Your task to perform on an android device: Open eBay Image 0: 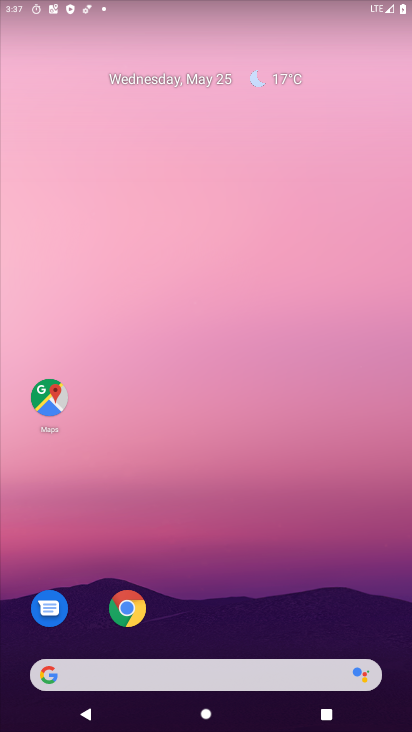
Step 0: drag from (277, 565) to (249, 149)
Your task to perform on an android device: Open eBay Image 1: 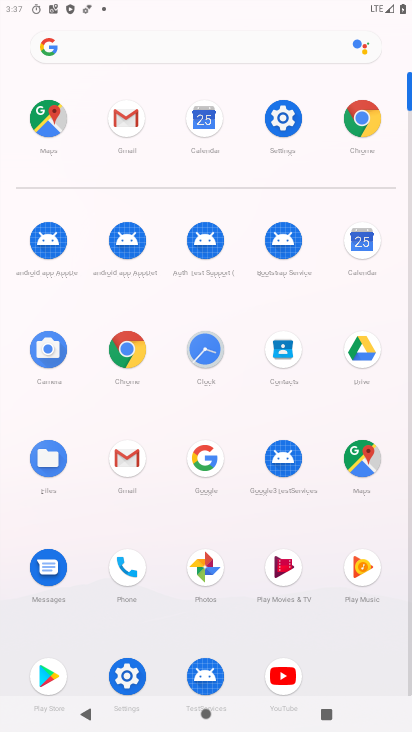
Step 1: click (361, 111)
Your task to perform on an android device: Open eBay Image 2: 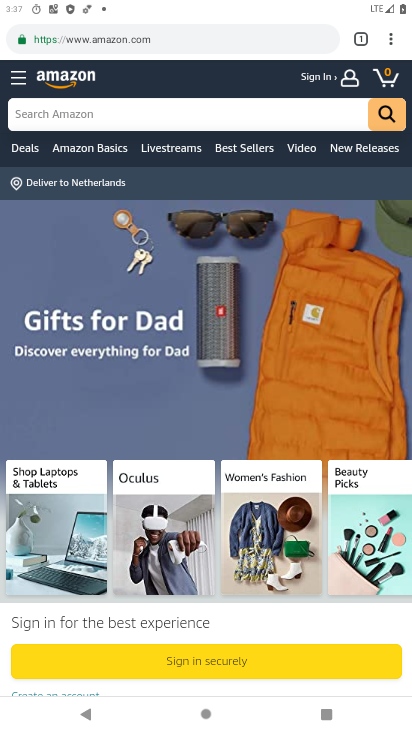
Step 2: click (157, 44)
Your task to perform on an android device: Open eBay Image 3: 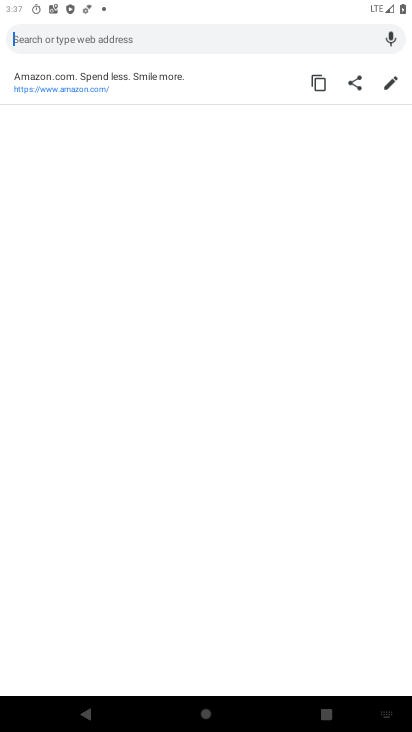
Step 3: type "ebay"
Your task to perform on an android device: Open eBay Image 4: 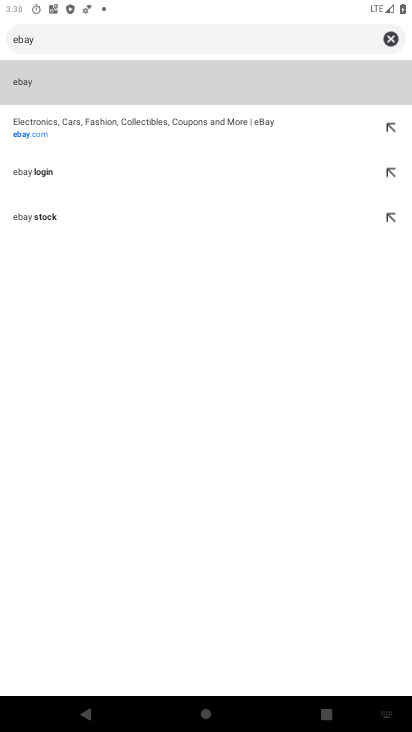
Step 4: click (21, 132)
Your task to perform on an android device: Open eBay Image 5: 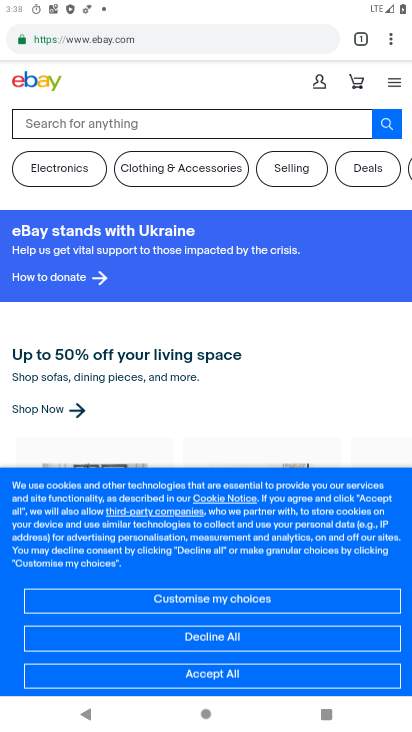
Step 5: task complete